Your task to perform on an android device: open a new tab in the chrome app Image 0: 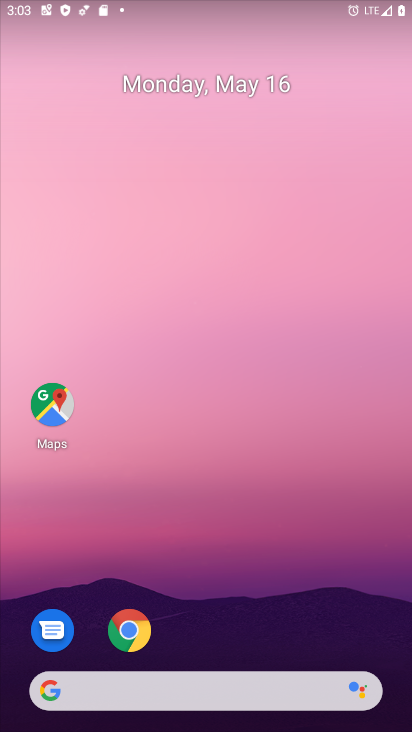
Step 0: drag from (235, 648) to (270, 76)
Your task to perform on an android device: open a new tab in the chrome app Image 1: 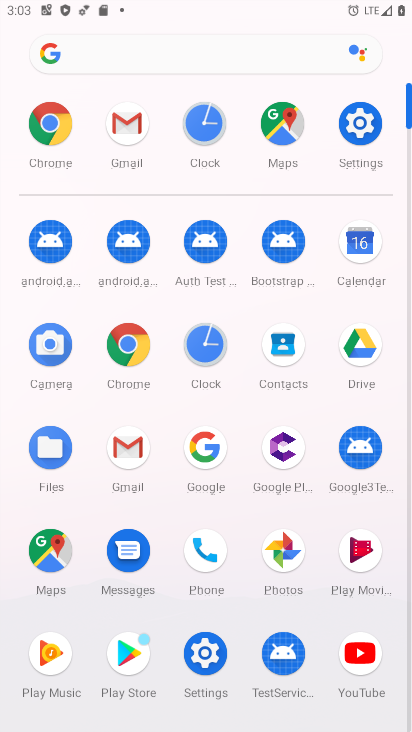
Step 1: drag from (201, 335) to (197, 65)
Your task to perform on an android device: open a new tab in the chrome app Image 2: 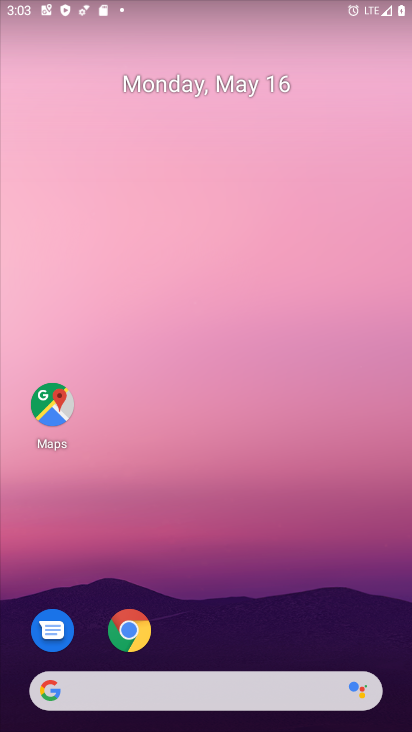
Step 2: drag from (221, 645) to (238, 135)
Your task to perform on an android device: open a new tab in the chrome app Image 3: 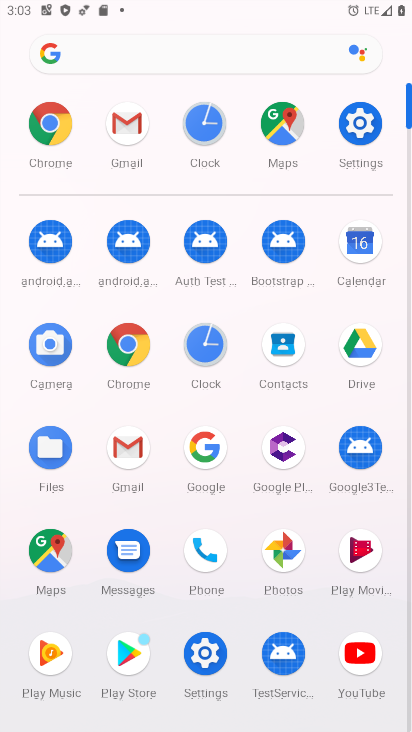
Step 3: drag from (230, 649) to (295, 25)
Your task to perform on an android device: open a new tab in the chrome app Image 4: 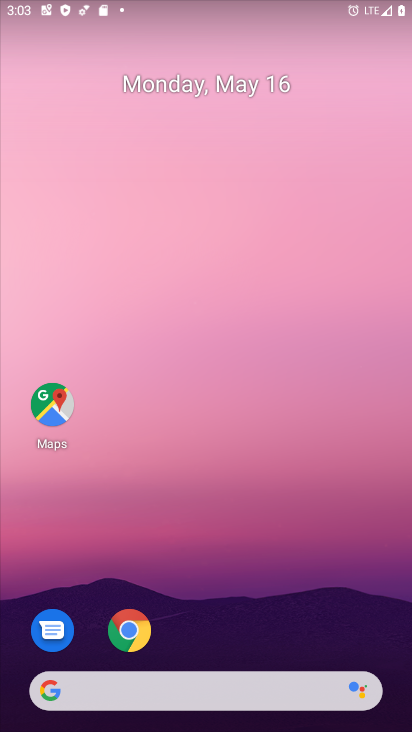
Step 4: drag from (231, 646) to (287, 30)
Your task to perform on an android device: open a new tab in the chrome app Image 5: 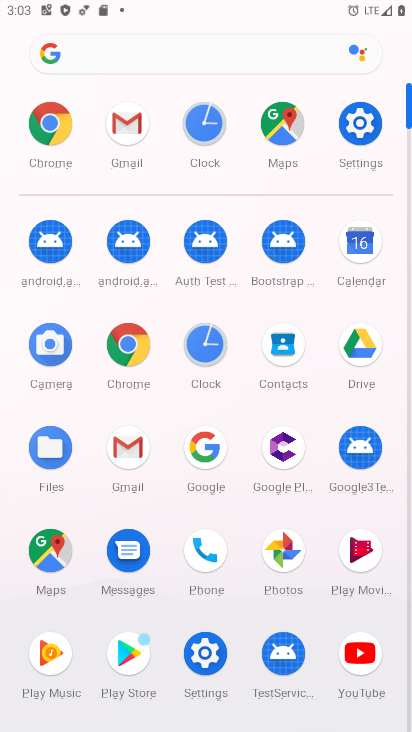
Step 5: click (123, 120)
Your task to perform on an android device: open a new tab in the chrome app Image 6: 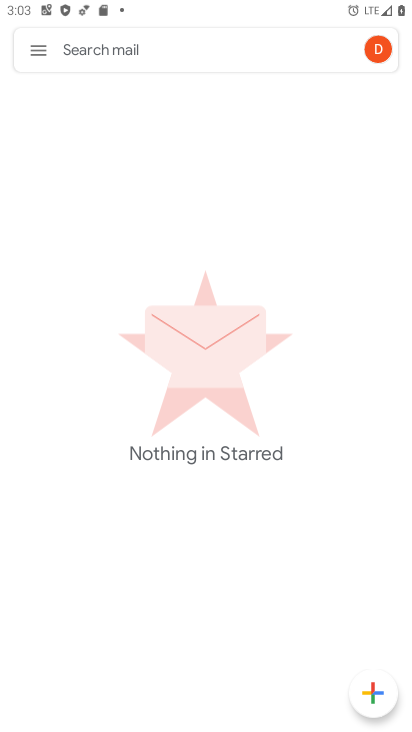
Step 6: press home button
Your task to perform on an android device: open a new tab in the chrome app Image 7: 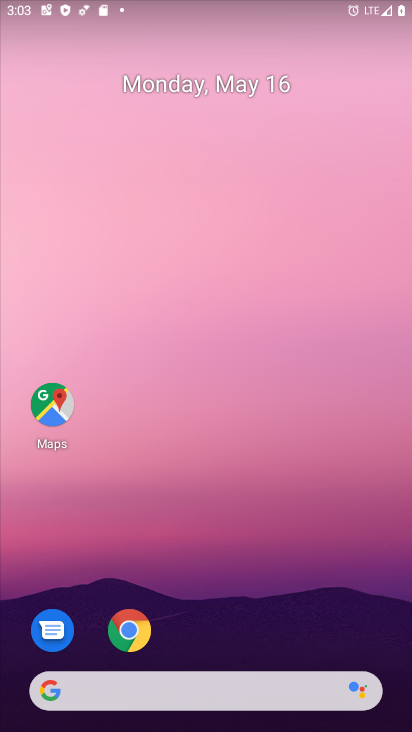
Step 7: click (130, 619)
Your task to perform on an android device: open a new tab in the chrome app Image 8: 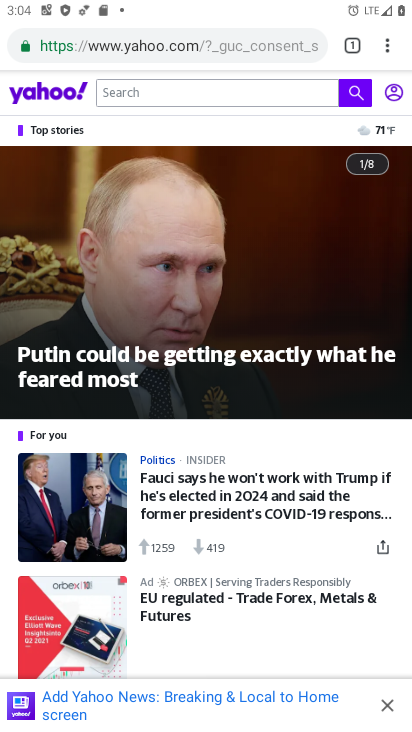
Step 8: click (346, 41)
Your task to perform on an android device: open a new tab in the chrome app Image 9: 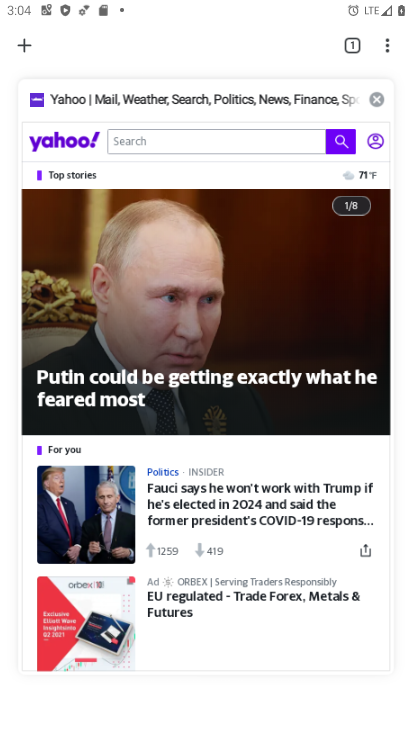
Step 9: click (21, 44)
Your task to perform on an android device: open a new tab in the chrome app Image 10: 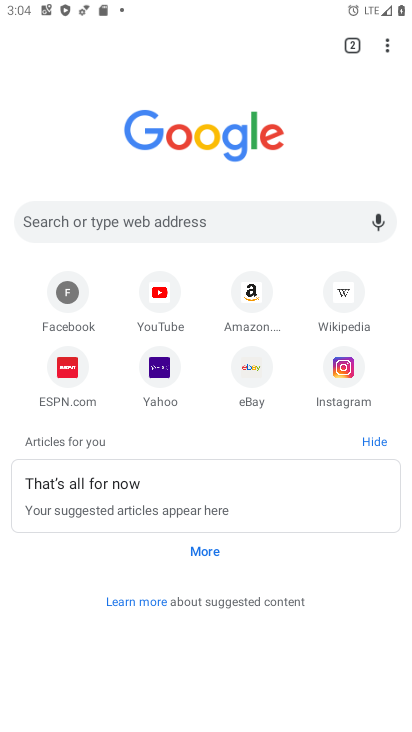
Step 10: task complete